Your task to perform on an android device: Open the map Image 0: 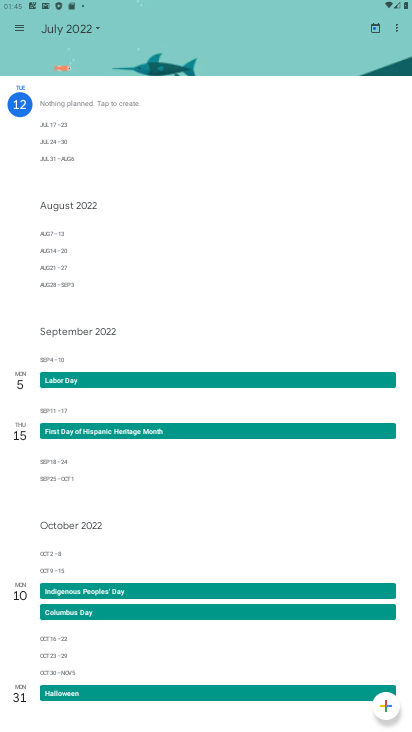
Step 0: press home button
Your task to perform on an android device: Open the map Image 1: 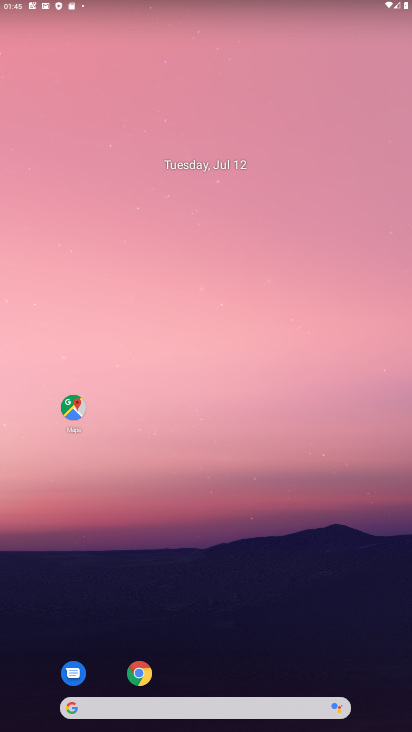
Step 1: click (70, 403)
Your task to perform on an android device: Open the map Image 2: 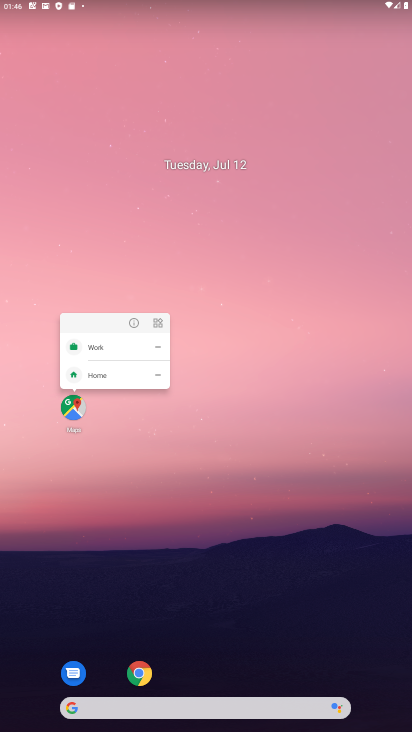
Step 2: click (63, 405)
Your task to perform on an android device: Open the map Image 3: 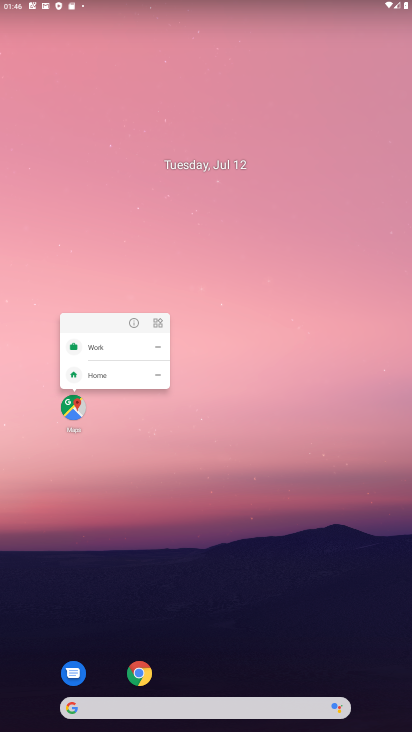
Step 3: click (68, 411)
Your task to perform on an android device: Open the map Image 4: 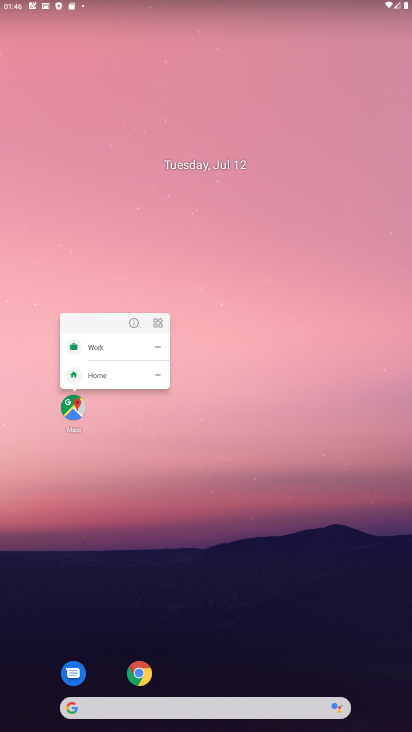
Step 4: click (74, 411)
Your task to perform on an android device: Open the map Image 5: 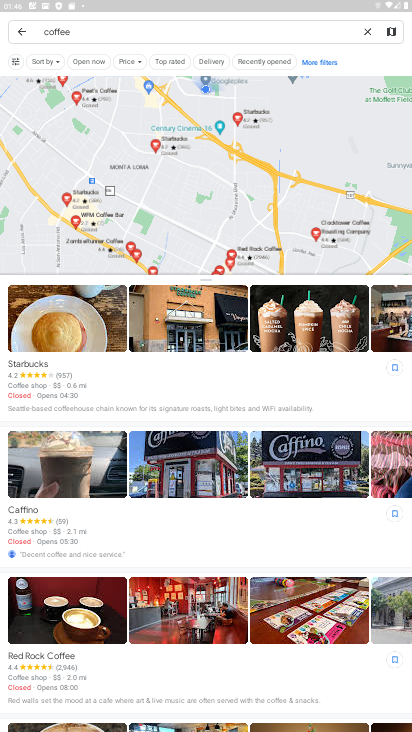
Step 5: click (17, 32)
Your task to perform on an android device: Open the map Image 6: 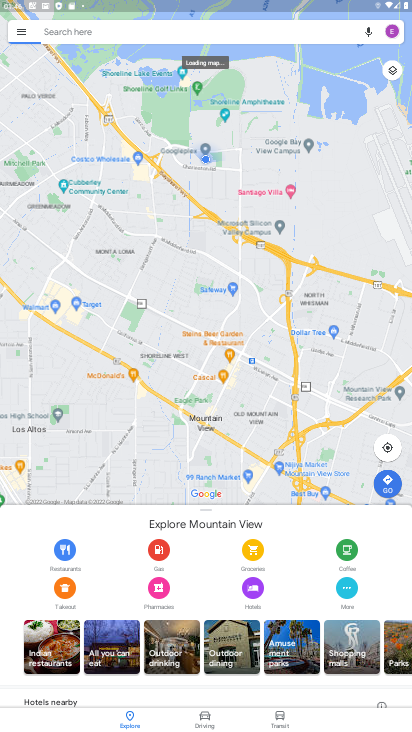
Step 6: task complete